Your task to perform on an android device: turn on data saver in the chrome app Image 0: 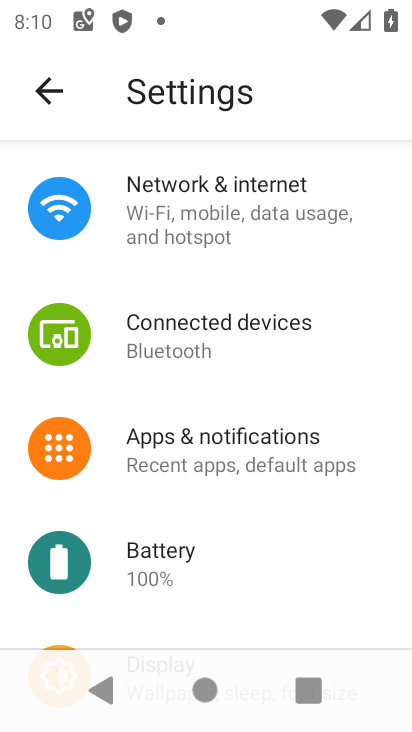
Step 0: press home button
Your task to perform on an android device: turn on data saver in the chrome app Image 1: 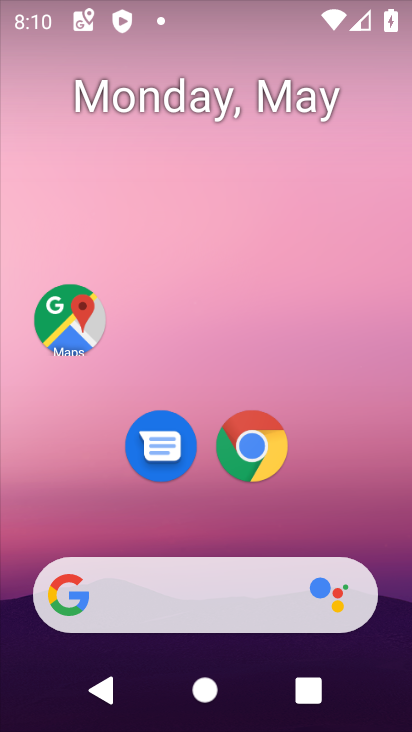
Step 1: click (245, 449)
Your task to perform on an android device: turn on data saver in the chrome app Image 2: 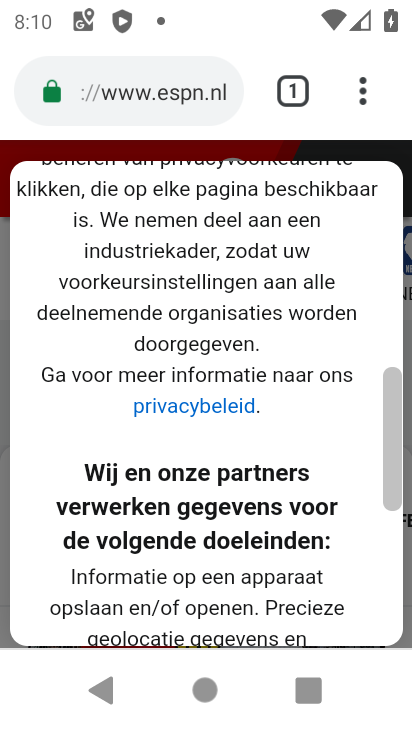
Step 2: click (365, 86)
Your task to perform on an android device: turn on data saver in the chrome app Image 3: 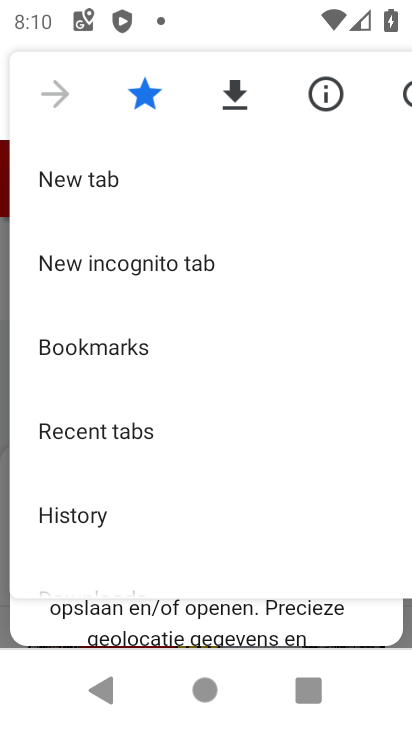
Step 3: drag from (183, 551) to (184, 201)
Your task to perform on an android device: turn on data saver in the chrome app Image 4: 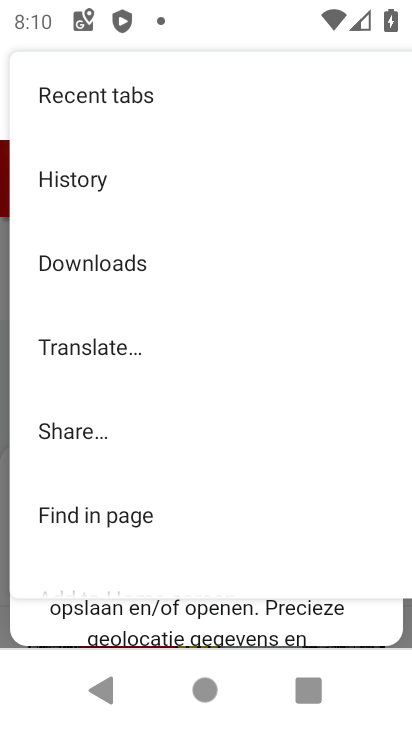
Step 4: click (241, 486)
Your task to perform on an android device: turn on data saver in the chrome app Image 5: 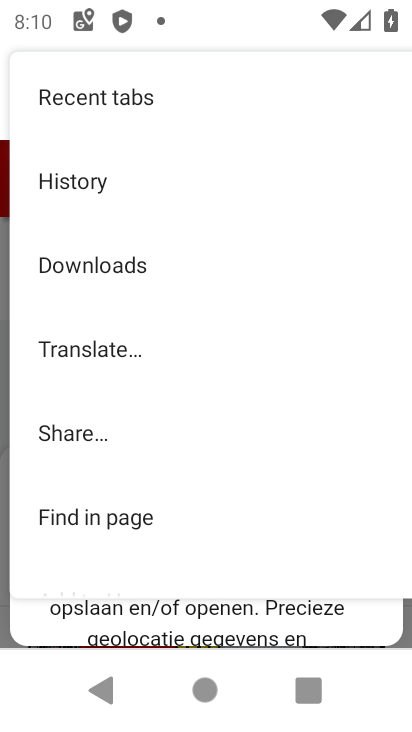
Step 5: drag from (255, 370) to (239, 15)
Your task to perform on an android device: turn on data saver in the chrome app Image 6: 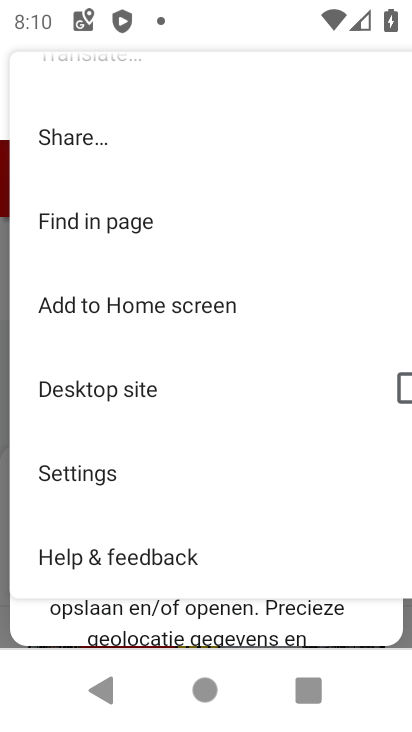
Step 6: click (107, 483)
Your task to perform on an android device: turn on data saver in the chrome app Image 7: 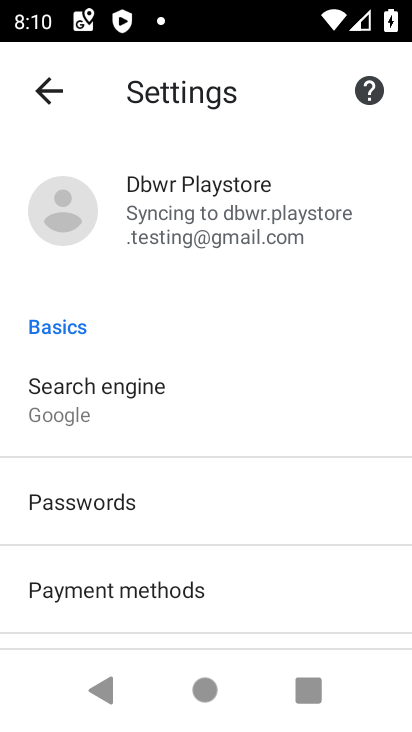
Step 7: drag from (155, 535) to (143, 134)
Your task to perform on an android device: turn on data saver in the chrome app Image 8: 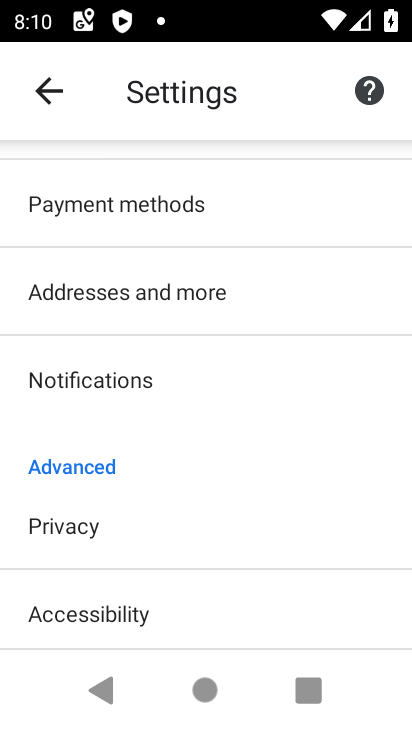
Step 8: drag from (380, 477) to (319, 102)
Your task to perform on an android device: turn on data saver in the chrome app Image 9: 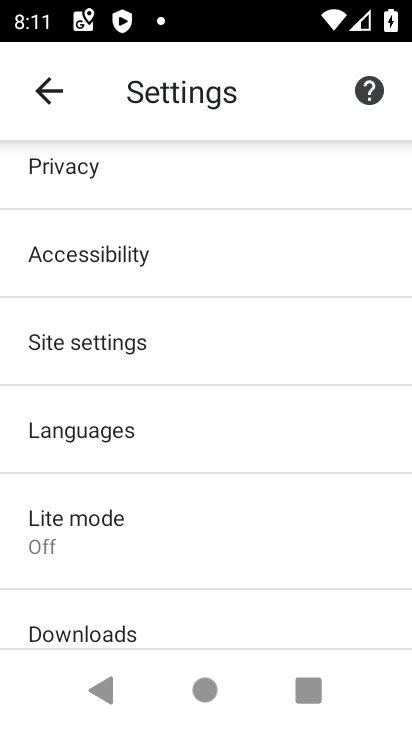
Step 9: click (226, 527)
Your task to perform on an android device: turn on data saver in the chrome app Image 10: 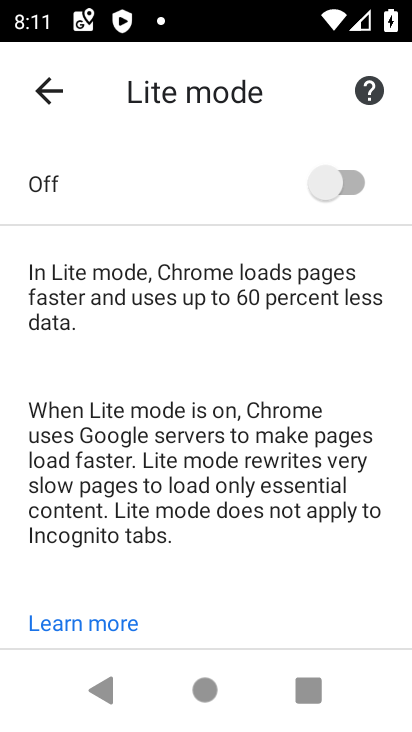
Step 10: click (344, 172)
Your task to perform on an android device: turn on data saver in the chrome app Image 11: 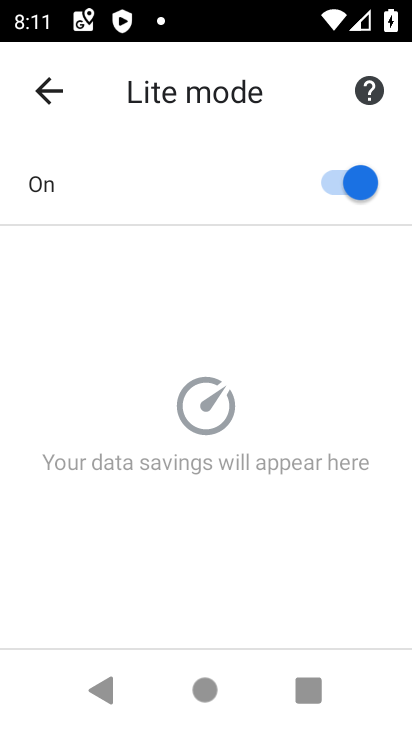
Step 11: task complete